Your task to perform on an android device: Is it going to rain today? Image 0: 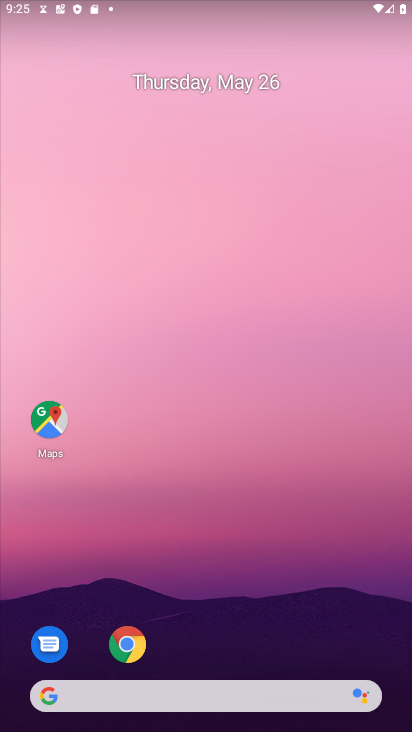
Step 0: click (207, 696)
Your task to perform on an android device: Is it going to rain today? Image 1: 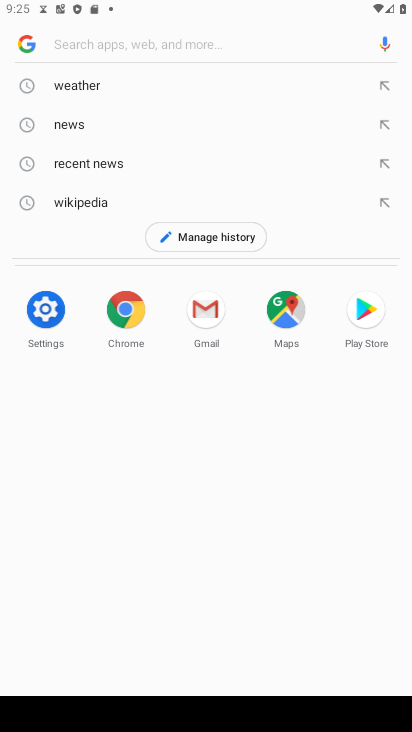
Step 1: click (100, 93)
Your task to perform on an android device: Is it going to rain today? Image 2: 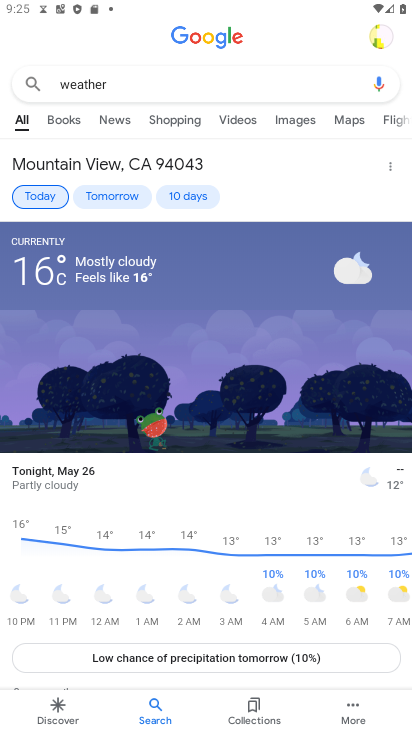
Step 2: task complete